Your task to perform on an android device: Open Google Chrome and click the shortcut for Amazon.com Image 0: 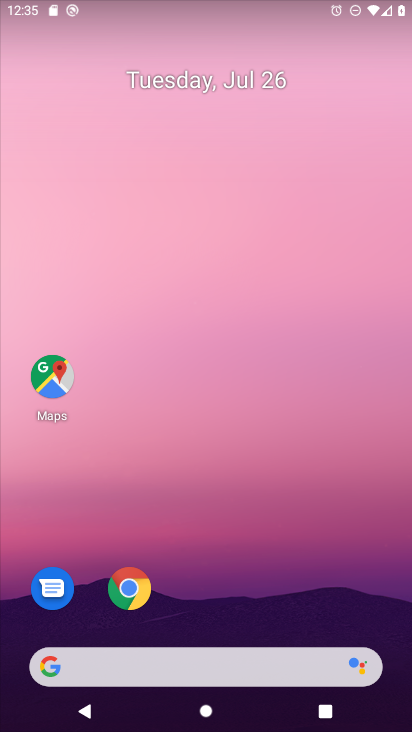
Step 0: drag from (293, 609) to (222, 81)
Your task to perform on an android device: Open Google Chrome and click the shortcut for Amazon.com Image 1: 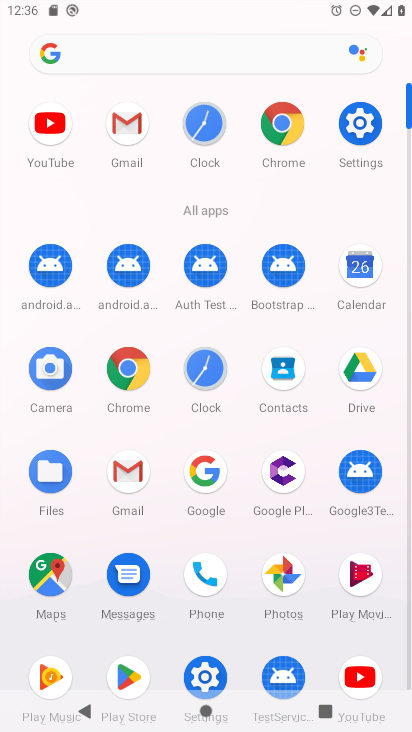
Step 1: click (284, 133)
Your task to perform on an android device: Open Google Chrome and click the shortcut for Amazon.com Image 2: 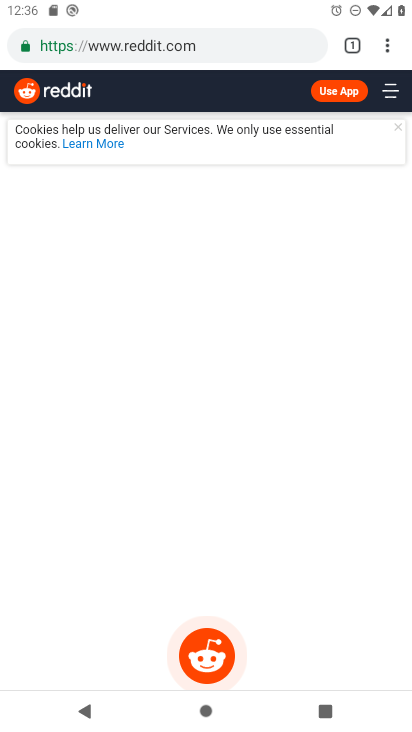
Step 2: click (387, 50)
Your task to perform on an android device: Open Google Chrome and click the shortcut for Amazon.com Image 3: 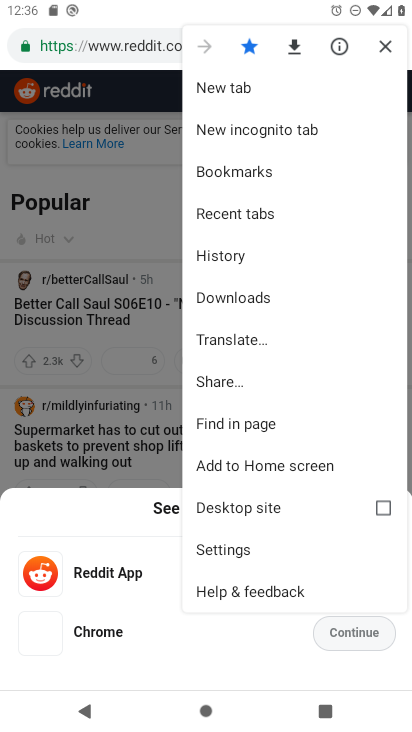
Step 3: click (228, 79)
Your task to perform on an android device: Open Google Chrome and click the shortcut for Amazon.com Image 4: 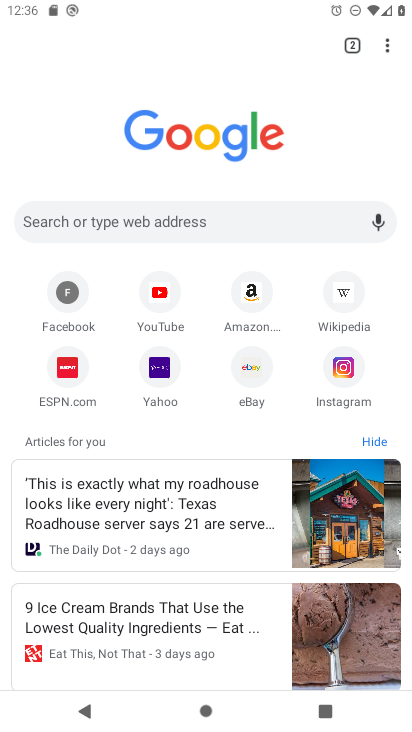
Step 4: click (252, 289)
Your task to perform on an android device: Open Google Chrome and click the shortcut for Amazon.com Image 5: 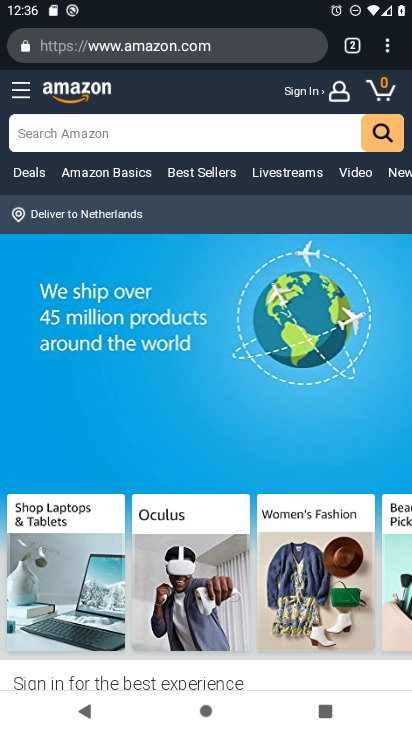
Step 5: task complete